Your task to perform on an android device: Open Google Chrome Image 0: 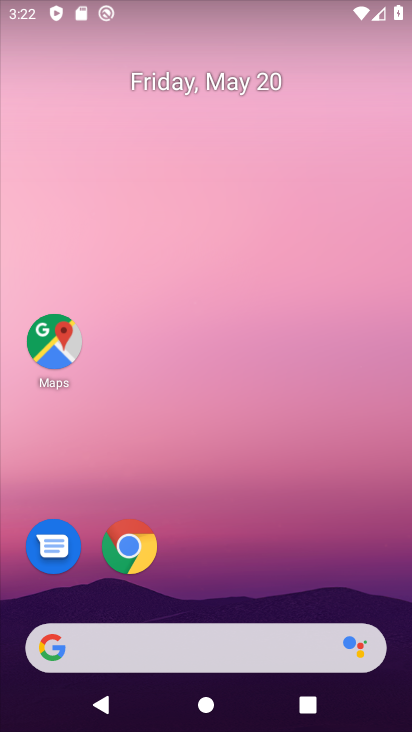
Step 0: click (128, 559)
Your task to perform on an android device: Open Google Chrome Image 1: 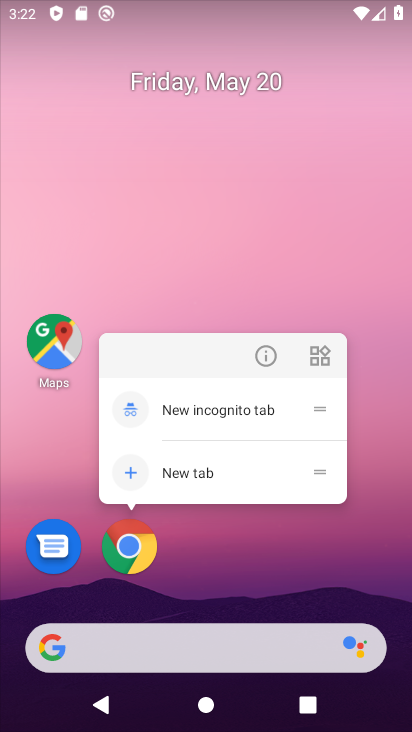
Step 1: click (129, 545)
Your task to perform on an android device: Open Google Chrome Image 2: 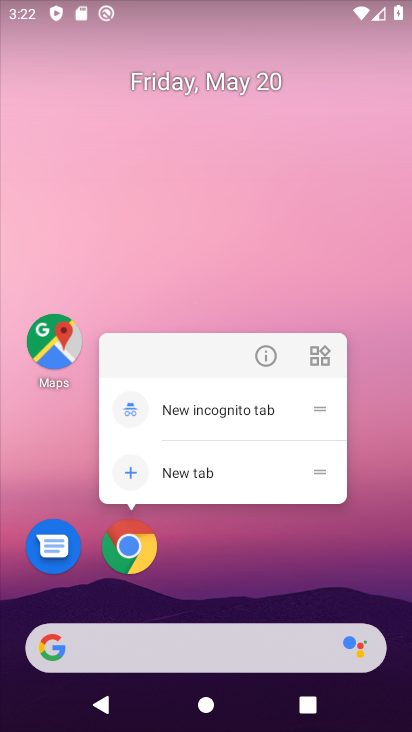
Step 2: click (384, 569)
Your task to perform on an android device: Open Google Chrome Image 3: 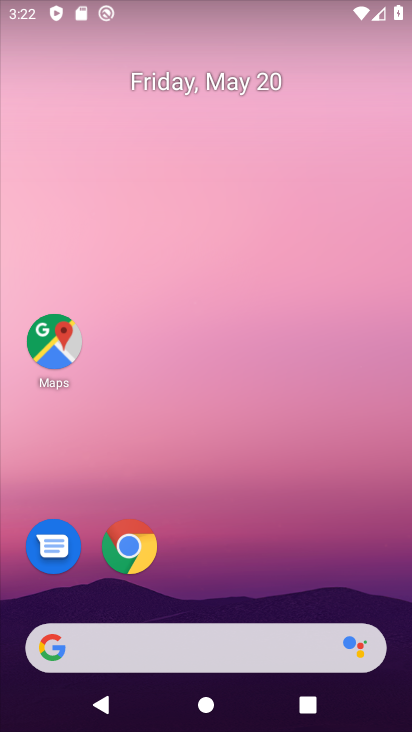
Step 3: drag from (344, 569) to (338, 138)
Your task to perform on an android device: Open Google Chrome Image 4: 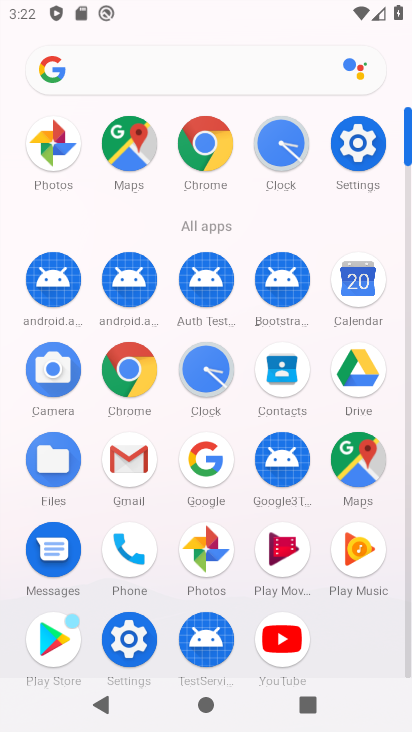
Step 4: click (132, 370)
Your task to perform on an android device: Open Google Chrome Image 5: 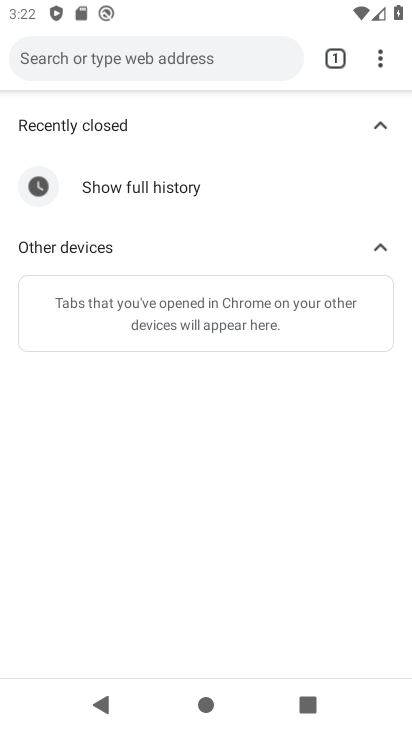
Step 5: task complete